Your task to perform on an android device: Go to privacy settings Image 0: 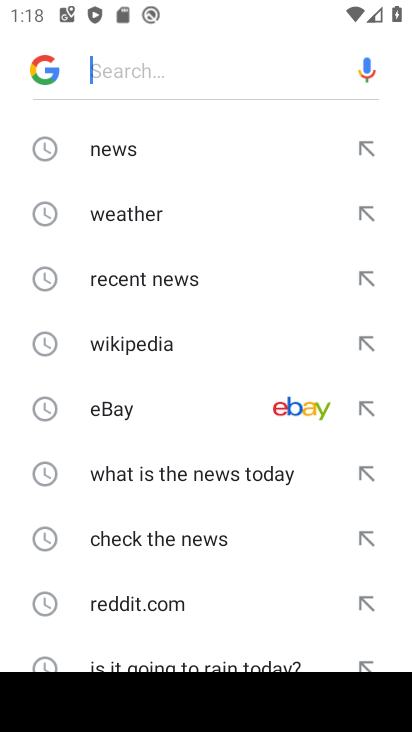
Step 0: press home button
Your task to perform on an android device: Go to privacy settings Image 1: 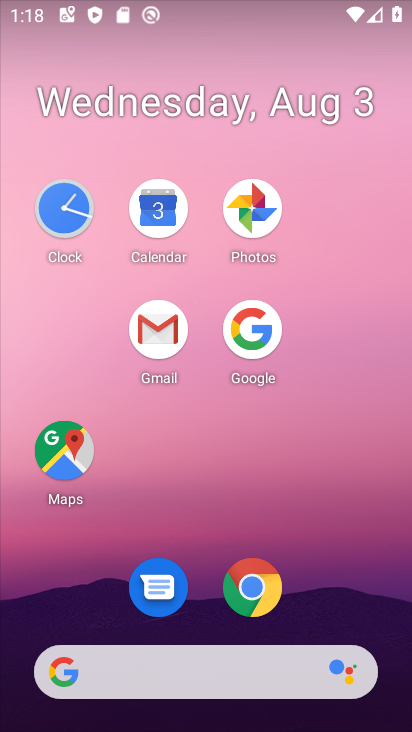
Step 1: drag from (318, 524) to (349, 131)
Your task to perform on an android device: Go to privacy settings Image 2: 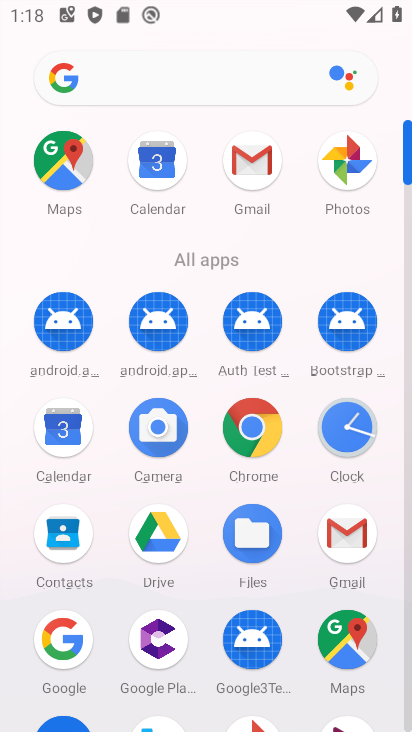
Step 2: drag from (172, 501) to (194, 139)
Your task to perform on an android device: Go to privacy settings Image 3: 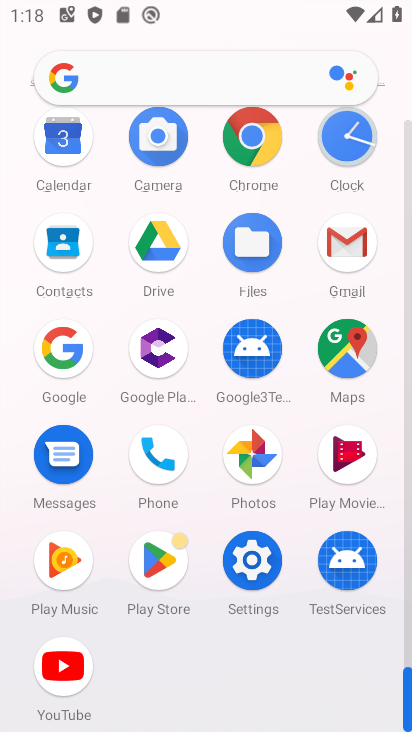
Step 3: drag from (261, 553) to (98, 314)
Your task to perform on an android device: Go to privacy settings Image 4: 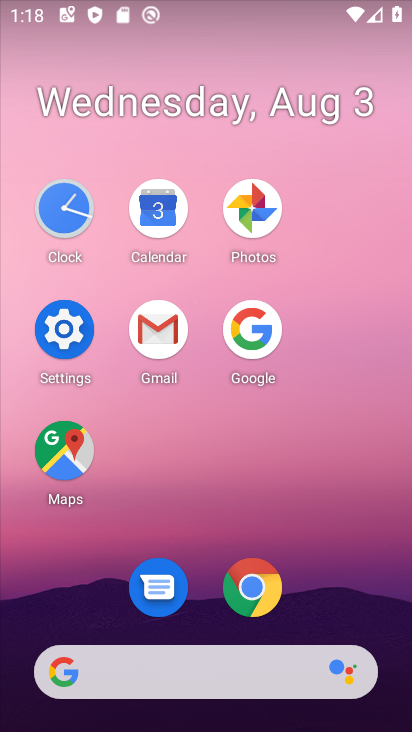
Step 4: click (60, 341)
Your task to perform on an android device: Go to privacy settings Image 5: 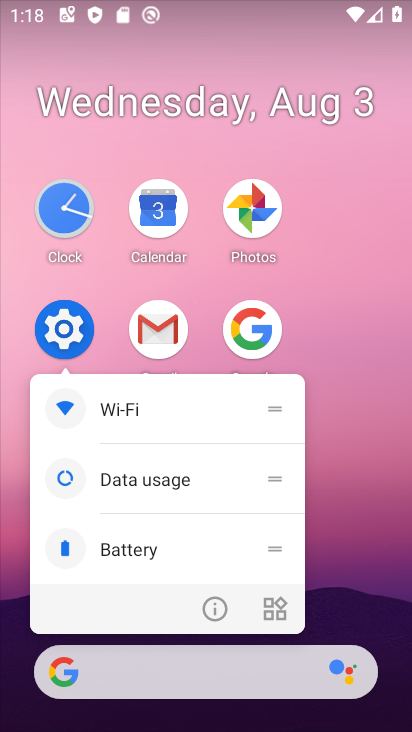
Step 5: click (42, 324)
Your task to perform on an android device: Go to privacy settings Image 6: 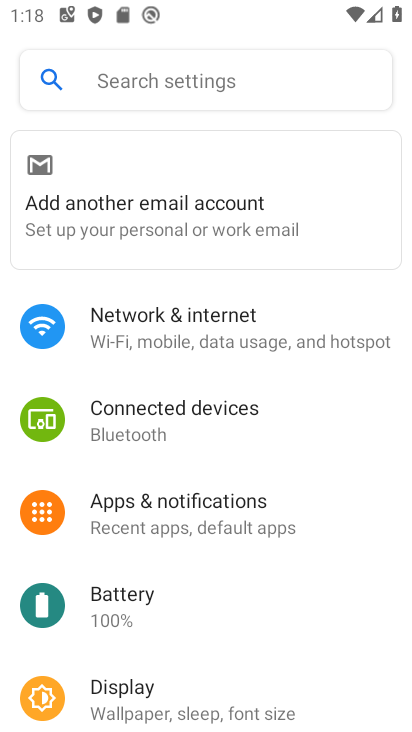
Step 6: drag from (285, 556) to (312, 189)
Your task to perform on an android device: Go to privacy settings Image 7: 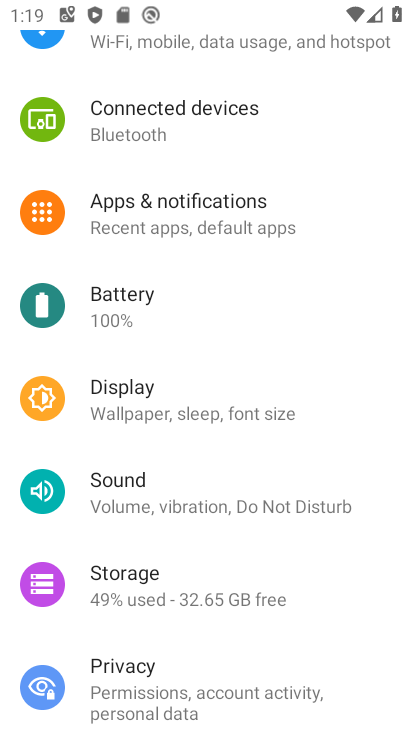
Step 7: click (135, 680)
Your task to perform on an android device: Go to privacy settings Image 8: 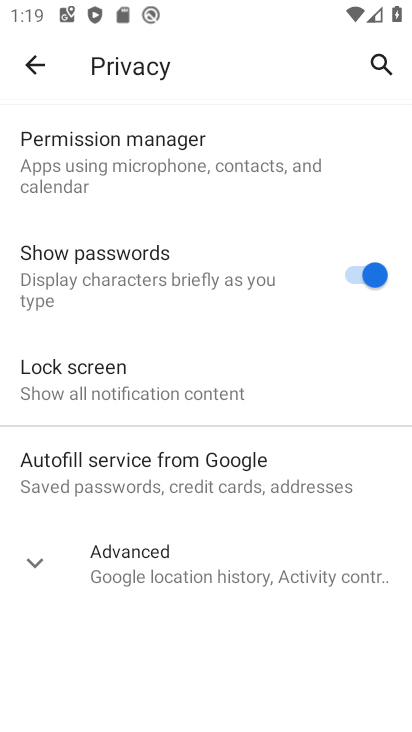
Step 8: task complete